Your task to perform on an android device: Open sound settings Image 0: 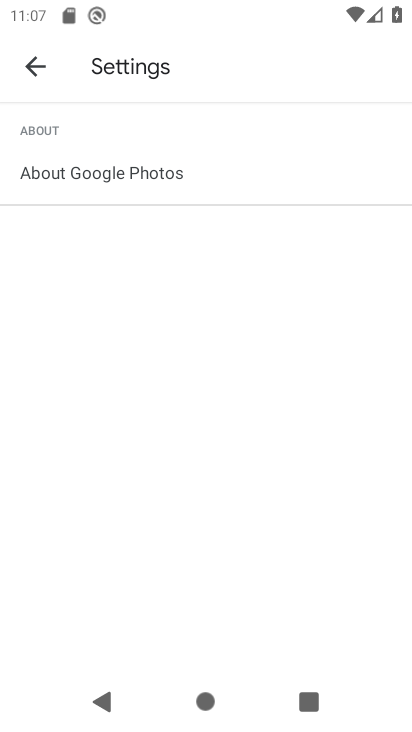
Step 0: press home button
Your task to perform on an android device: Open sound settings Image 1: 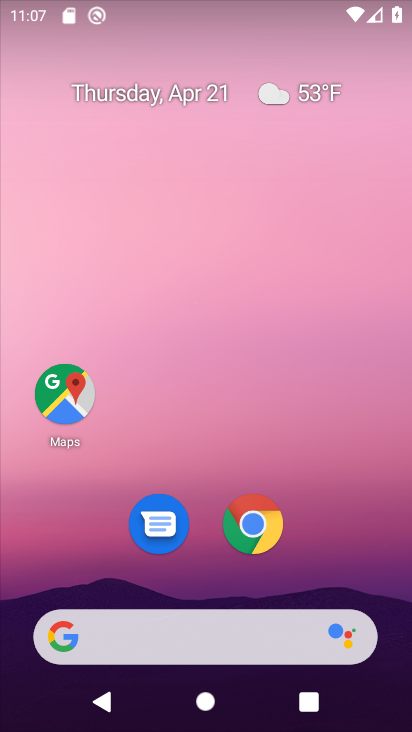
Step 1: drag from (326, 523) to (314, 205)
Your task to perform on an android device: Open sound settings Image 2: 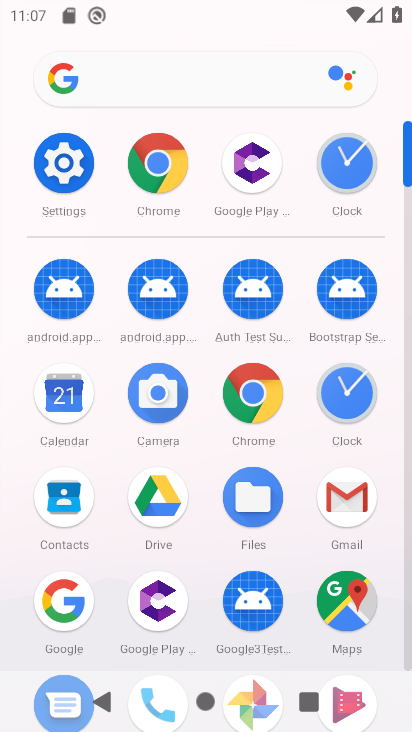
Step 2: click (70, 161)
Your task to perform on an android device: Open sound settings Image 3: 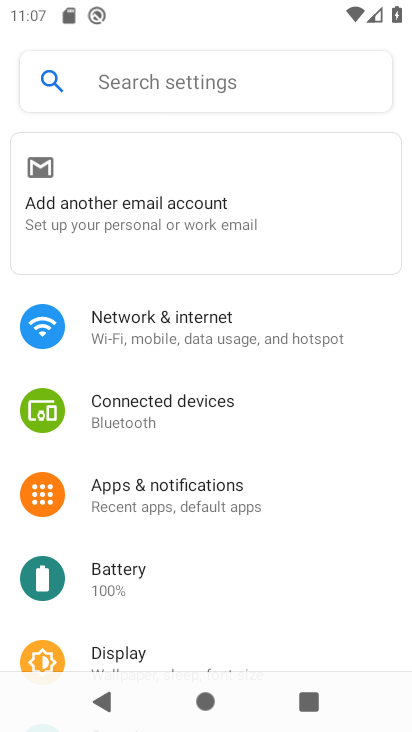
Step 3: drag from (209, 557) to (292, 138)
Your task to perform on an android device: Open sound settings Image 4: 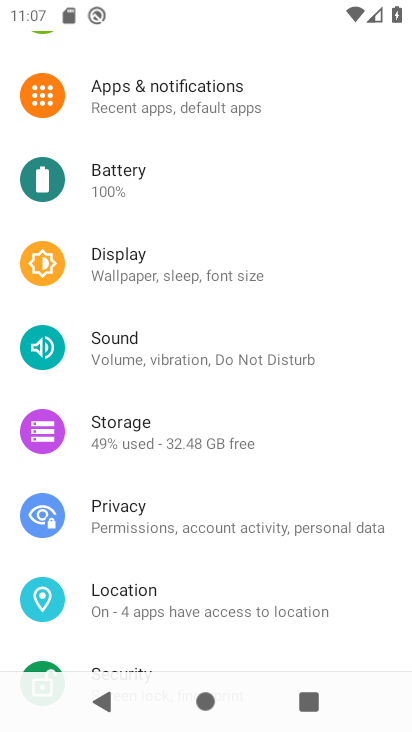
Step 4: click (217, 352)
Your task to perform on an android device: Open sound settings Image 5: 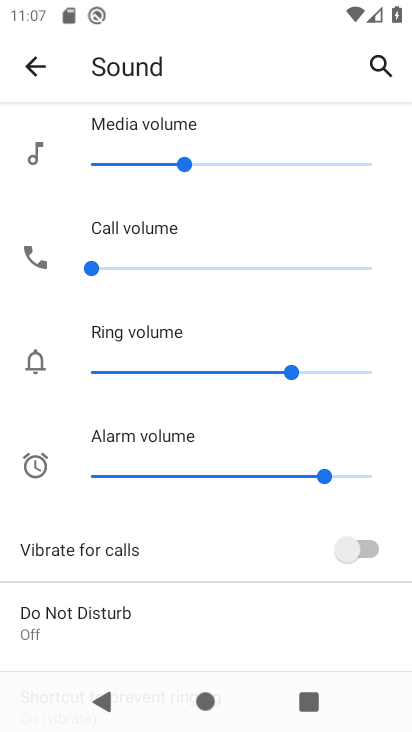
Step 5: task complete